Your task to perform on an android device: check battery use Image 0: 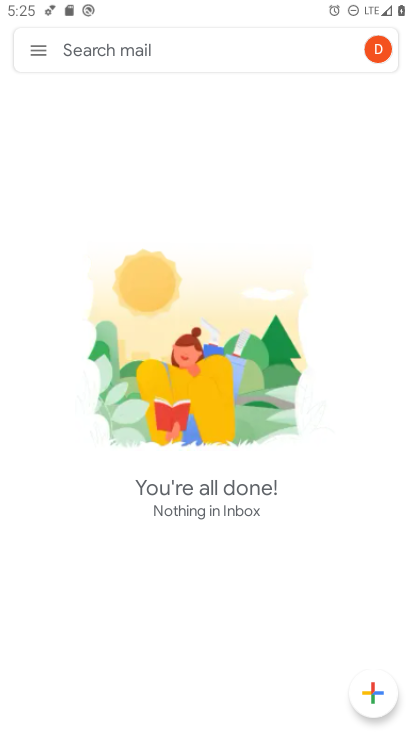
Step 0: press home button
Your task to perform on an android device: check battery use Image 1: 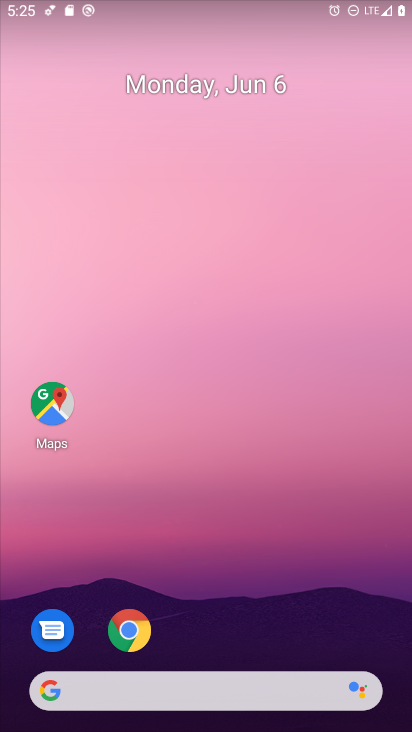
Step 1: drag from (325, 589) to (184, 38)
Your task to perform on an android device: check battery use Image 2: 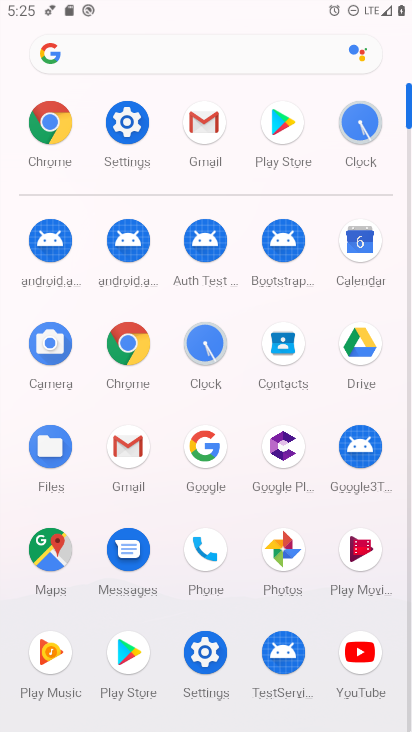
Step 2: click (123, 115)
Your task to perform on an android device: check battery use Image 3: 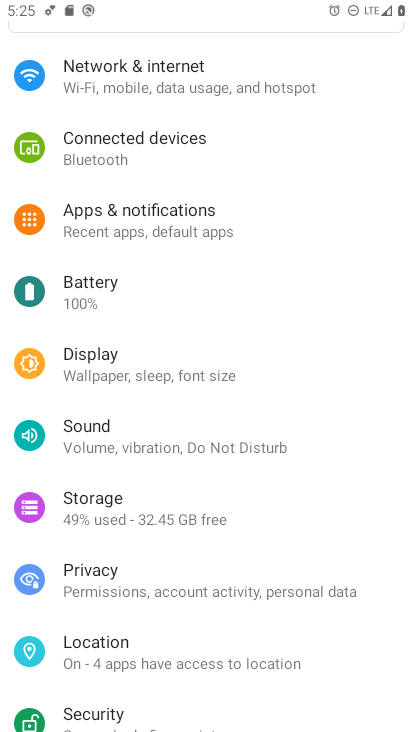
Step 3: click (188, 311)
Your task to perform on an android device: check battery use Image 4: 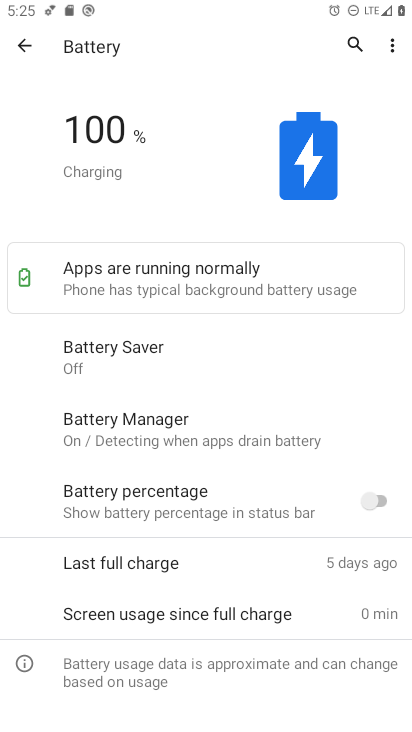
Step 4: click (395, 39)
Your task to perform on an android device: check battery use Image 5: 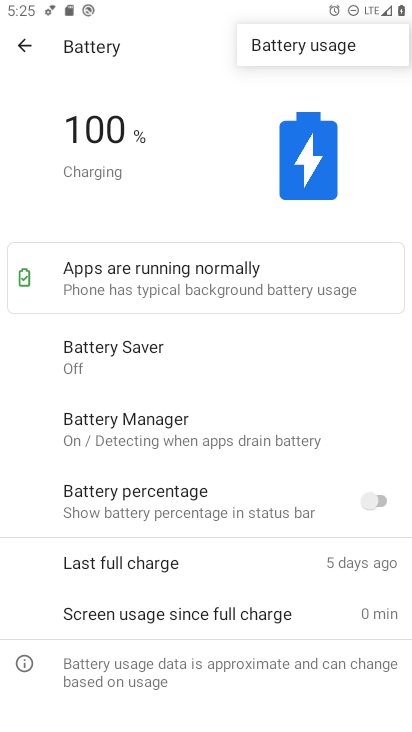
Step 5: click (290, 37)
Your task to perform on an android device: check battery use Image 6: 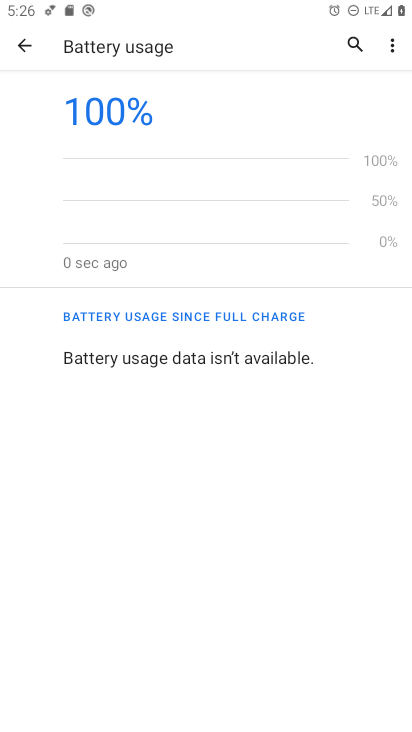
Step 6: task complete